Your task to perform on an android device: toggle notifications settings in the gmail app Image 0: 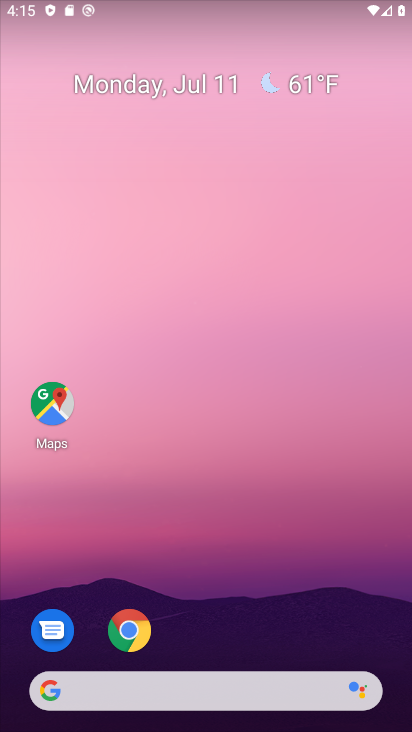
Step 0: drag from (231, 596) to (125, 3)
Your task to perform on an android device: toggle notifications settings in the gmail app Image 1: 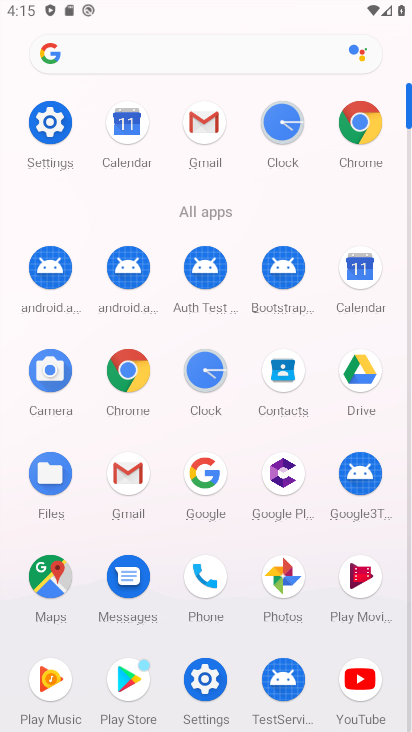
Step 1: click (194, 128)
Your task to perform on an android device: toggle notifications settings in the gmail app Image 2: 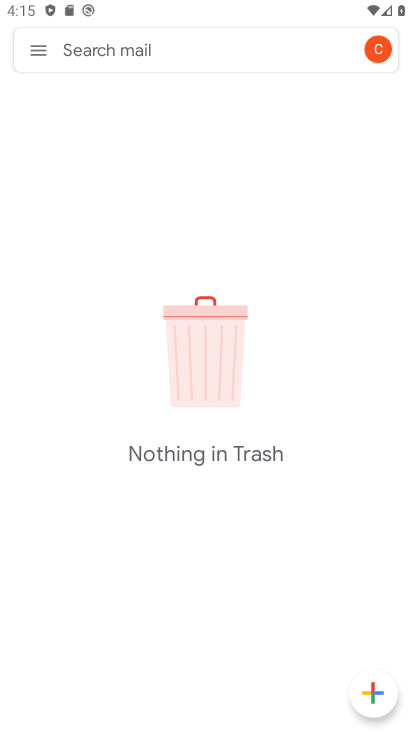
Step 2: click (23, 37)
Your task to perform on an android device: toggle notifications settings in the gmail app Image 3: 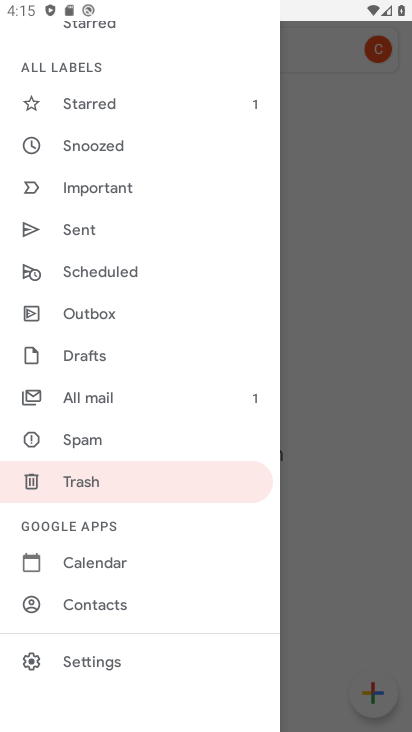
Step 3: click (99, 672)
Your task to perform on an android device: toggle notifications settings in the gmail app Image 4: 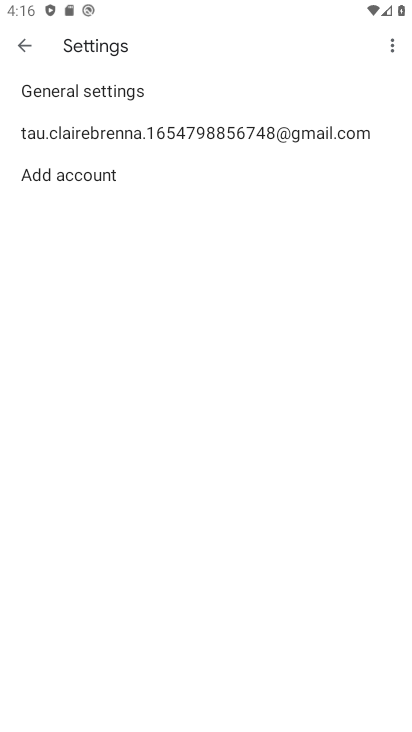
Step 4: click (105, 133)
Your task to perform on an android device: toggle notifications settings in the gmail app Image 5: 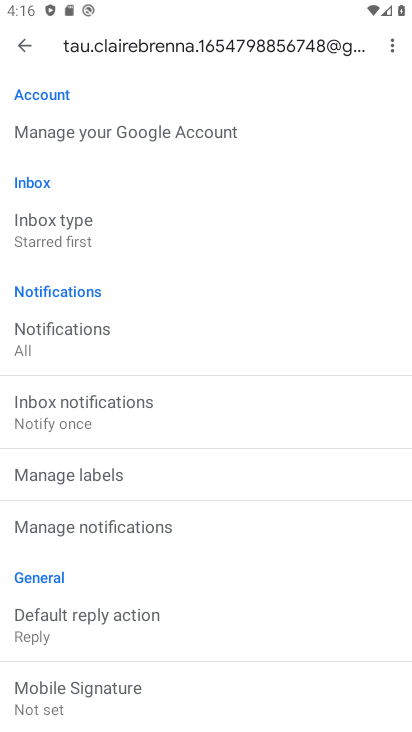
Step 5: click (73, 349)
Your task to perform on an android device: toggle notifications settings in the gmail app Image 6: 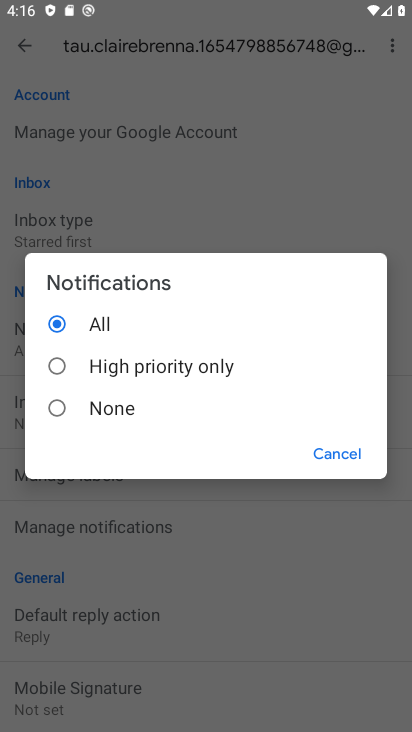
Step 6: click (66, 370)
Your task to perform on an android device: toggle notifications settings in the gmail app Image 7: 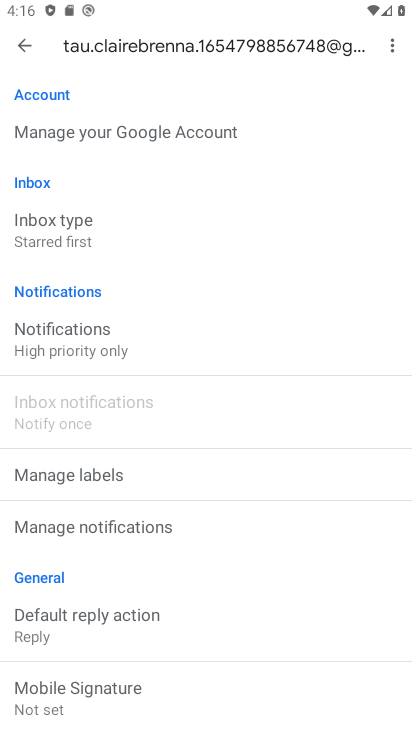
Step 7: task complete